Your task to perform on an android device: turn on translation in the chrome app Image 0: 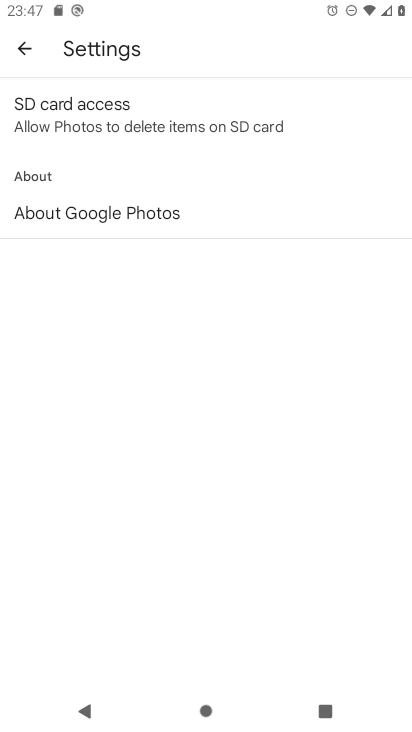
Step 0: press home button
Your task to perform on an android device: turn on translation in the chrome app Image 1: 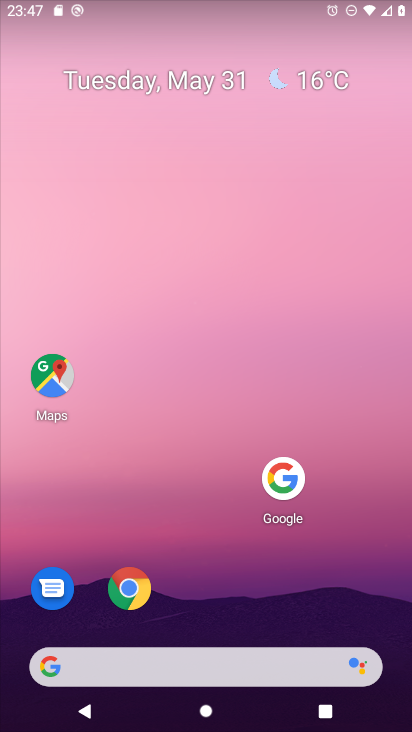
Step 1: click (131, 589)
Your task to perform on an android device: turn on translation in the chrome app Image 2: 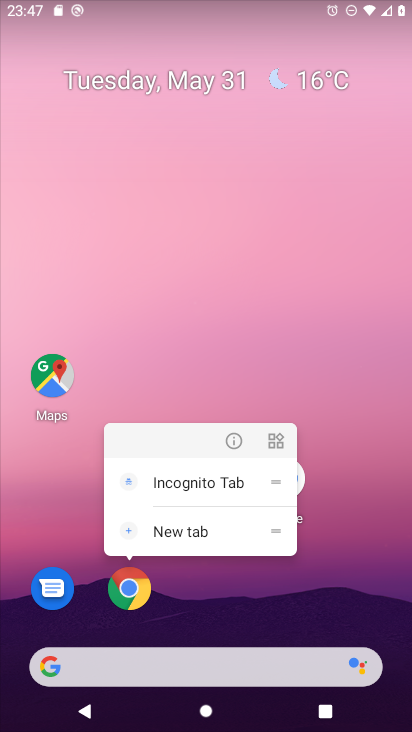
Step 2: click (131, 588)
Your task to perform on an android device: turn on translation in the chrome app Image 3: 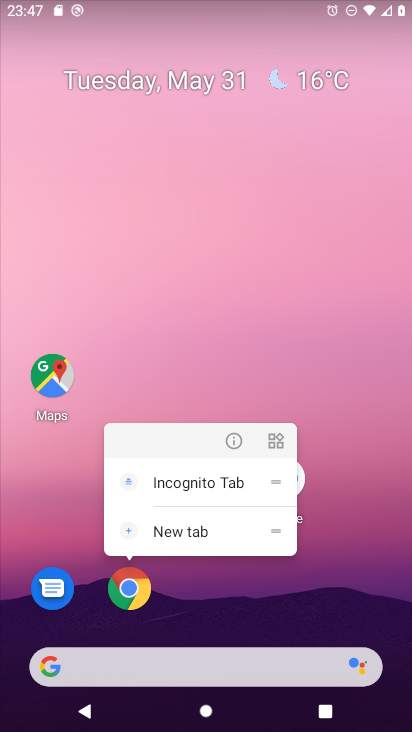
Step 3: click (125, 594)
Your task to perform on an android device: turn on translation in the chrome app Image 4: 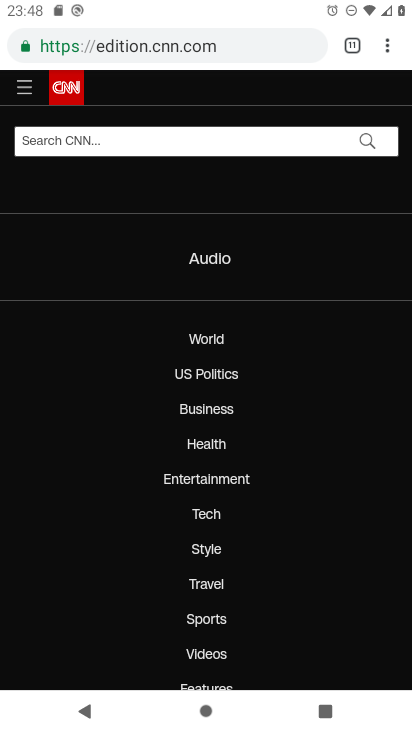
Step 4: drag from (387, 39) to (274, 544)
Your task to perform on an android device: turn on translation in the chrome app Image 5: 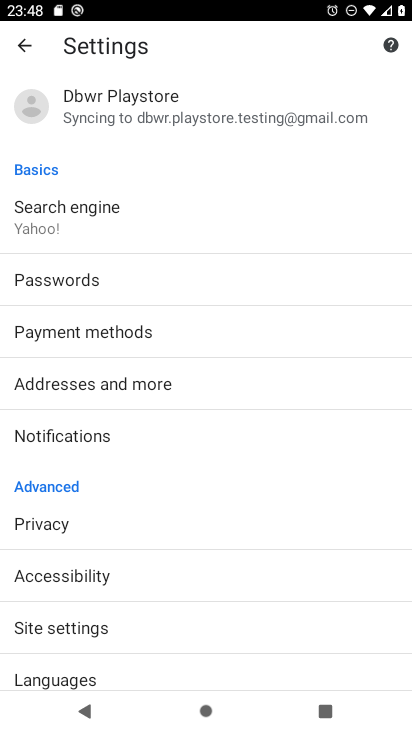
Step 5: drag from (172, 648) to (254, 436)
Your task to perform on an android device: turn on translation in the chrome app Image 6: 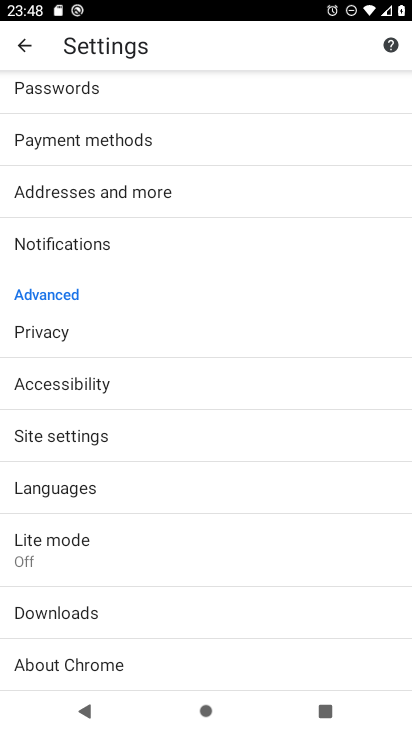
Step 6: click (81, 486)
Your task to perform on an android device: turn on translation in the chrome app Image 7: 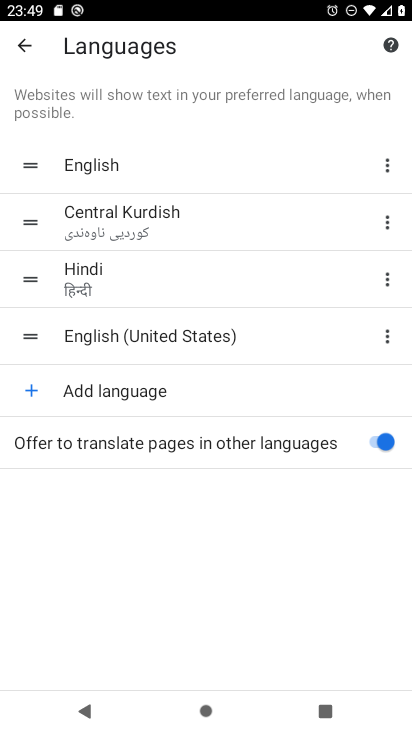
Step 7: task complete